Your task to perform on an android device: Go to Yahoo.com Image 0: 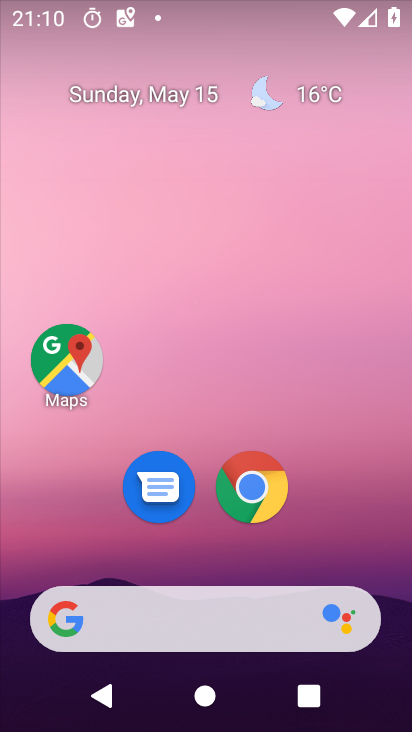
Step 0: click (253, 481)
Your task to perform on an android device: Go to Yahoo.com Image 1: 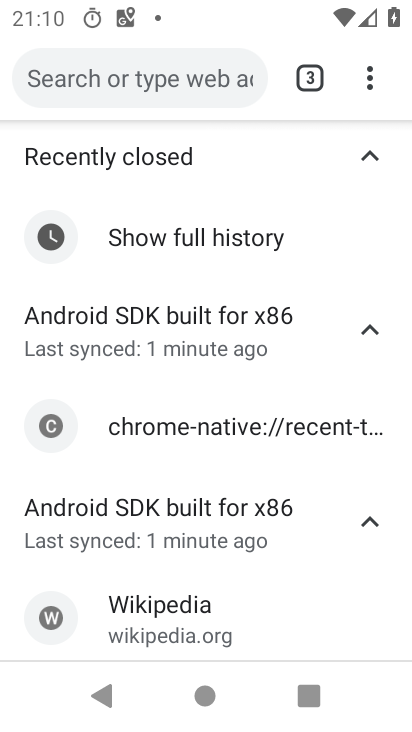
Step 1: click (256, 76)
Your task to perform on an android device: Go to Yahoo.com Image 2: 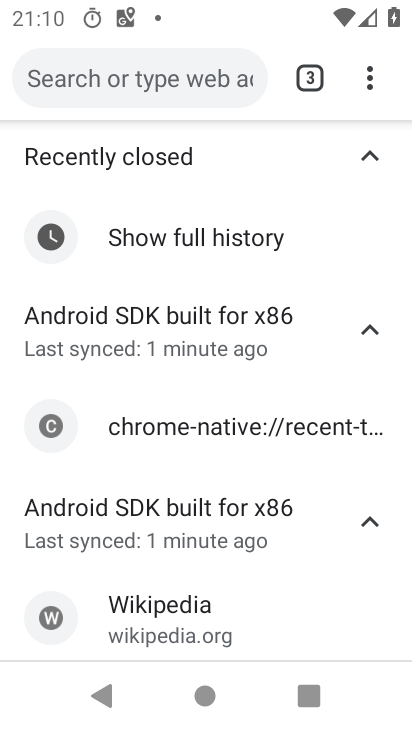
Step 2: click (251, 77)
Your task to perform on an android device: Go to Yahoo.com Image 3: 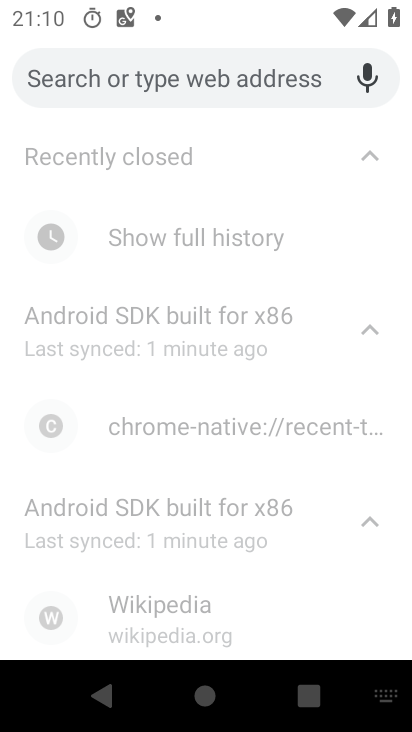
Step 3: type "Yahoo.com"
Your task to perform on an android device: Go to Yahoo.com Image 4: 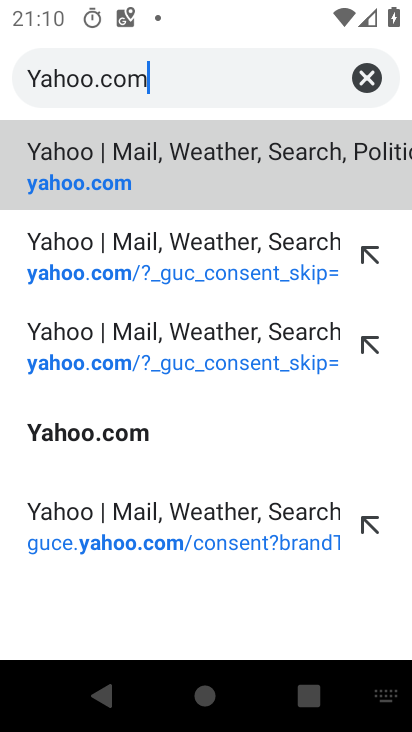
Step 4: click (88, 432)
Your task to perform on an android device: Go to Yahoo.com Image 5: 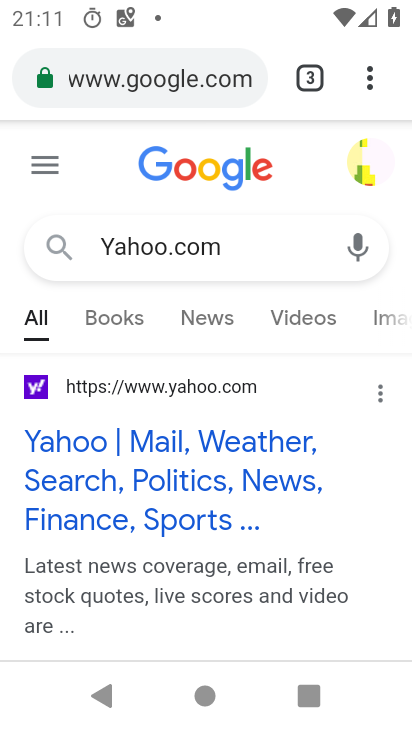
Step 5: task complete